Your task to perform on an android device: Add razer naga to the cart on target, then select checkout. Image 0: 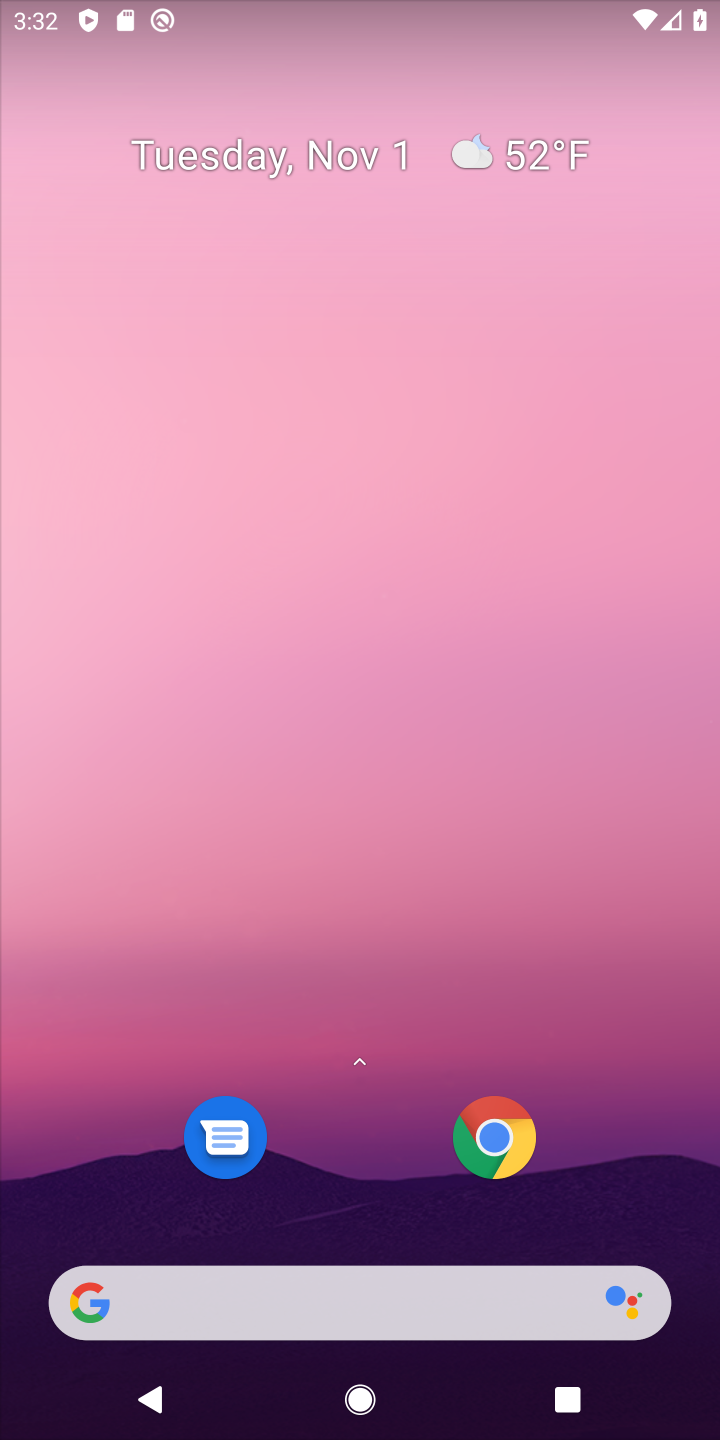
Step 0: click (286, 1300)
Your task to perform on an android device: Add razer naga to the cart on target, then select checkout. Image 1: 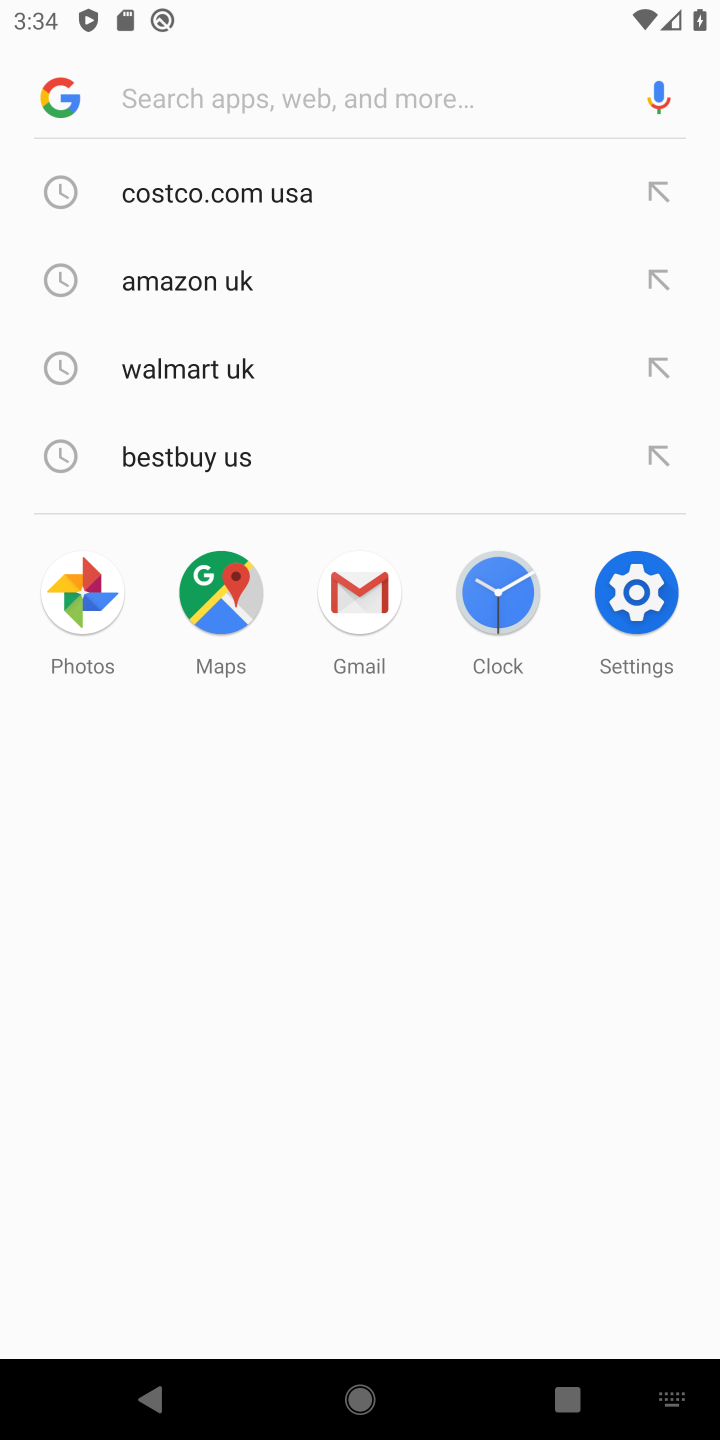
Step 1: type "target"
Your task to perform on an android device: Add razer naga to the cart on target, then select checkout. Image 2: 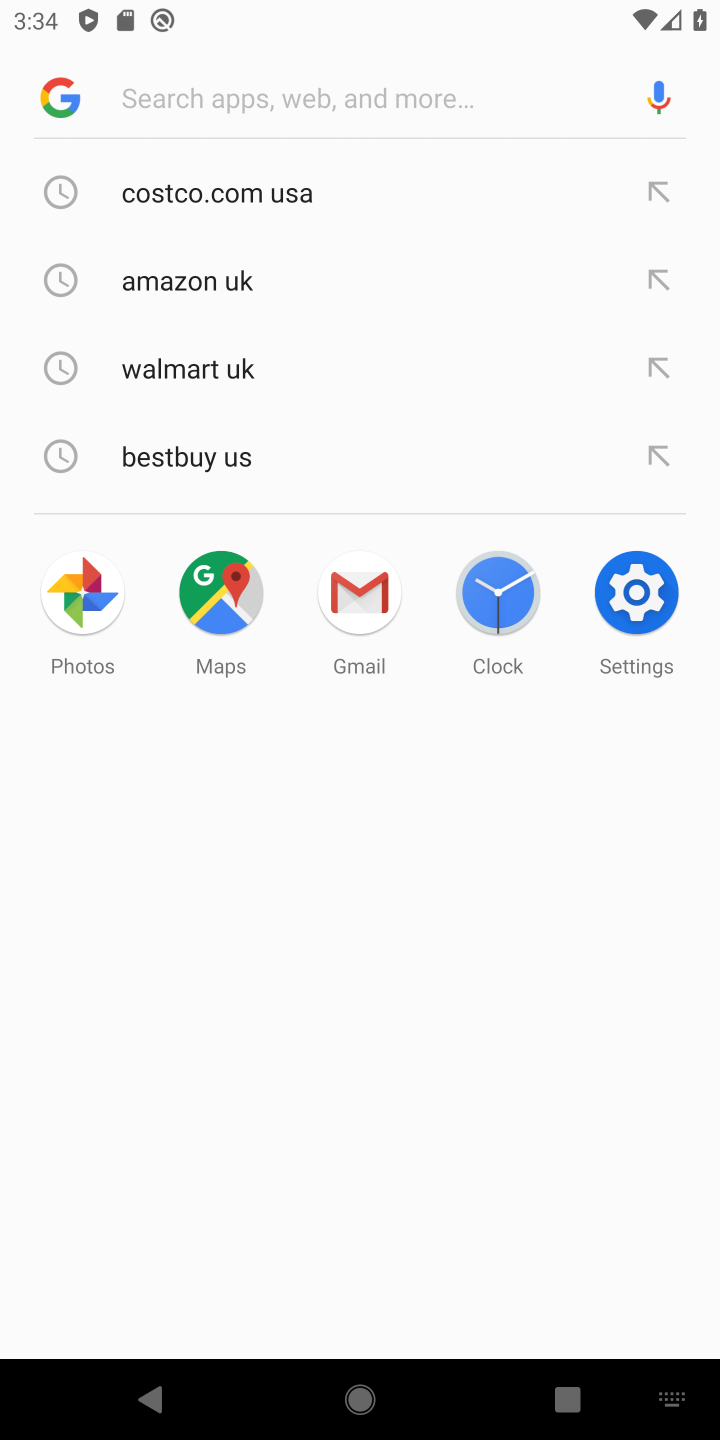
Step 2: click (311, 159)
Your task to perform on an android device: Add razer naga to the cart on target, then select checkout. Image 3: 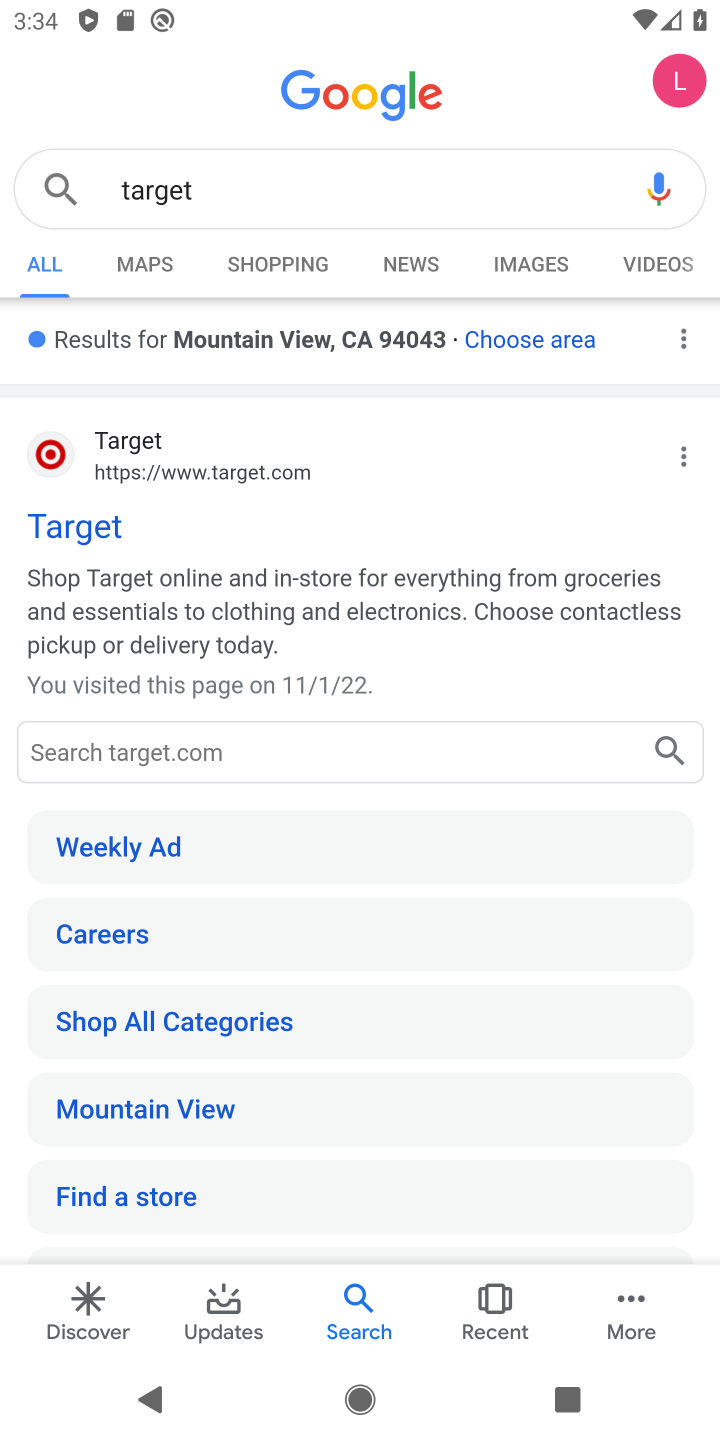
Step 3: task complete